Your task to perform on an android device: Open the calendar and show me this week's events? Image 0: 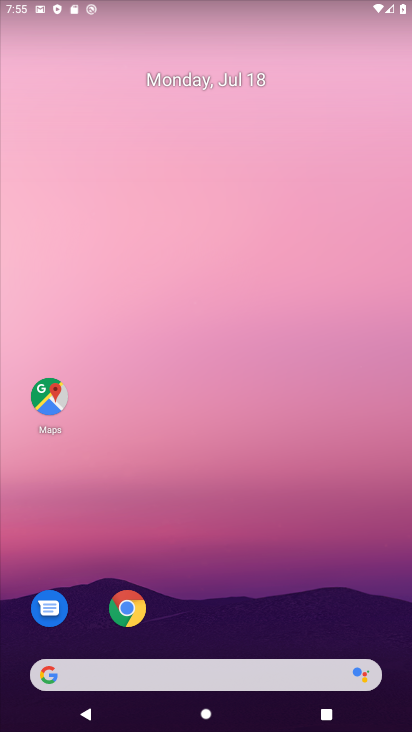
Step 0: drag from (229, 712) to (195, 279)
Your task to perform on an android device: Open the calendar and show me this week's events? Image 1: 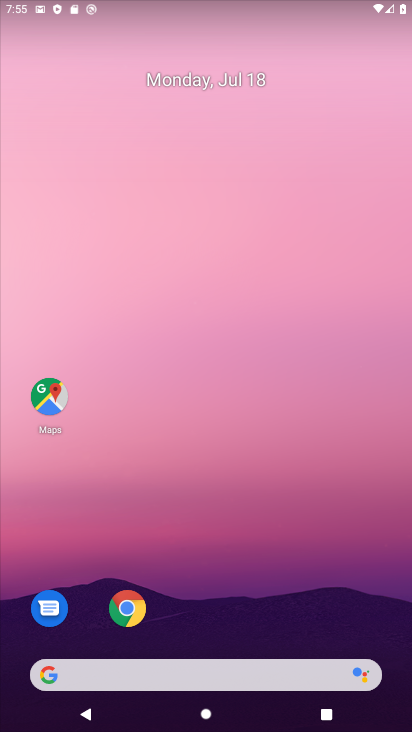
Step 1: drag from (245, 710) to (229, 151)
Your task to perform on an android device: Open the calendar and show me this week's events? Image 2: 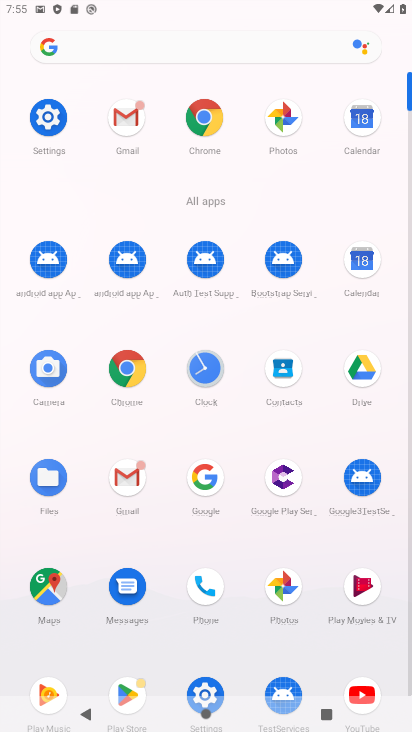
Step 2: click (368, 262)
Your task to perform on an android device: Open the calendar and show me this week's events? Image 3: 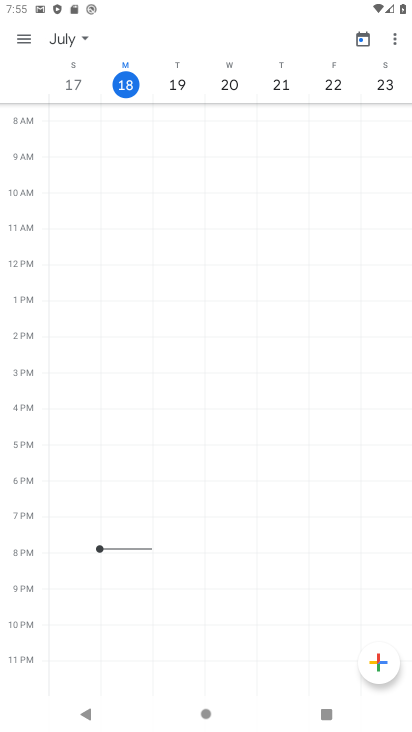
Step 3: task complete